Your task to perform on an android device: turn notification dots off Image 0: 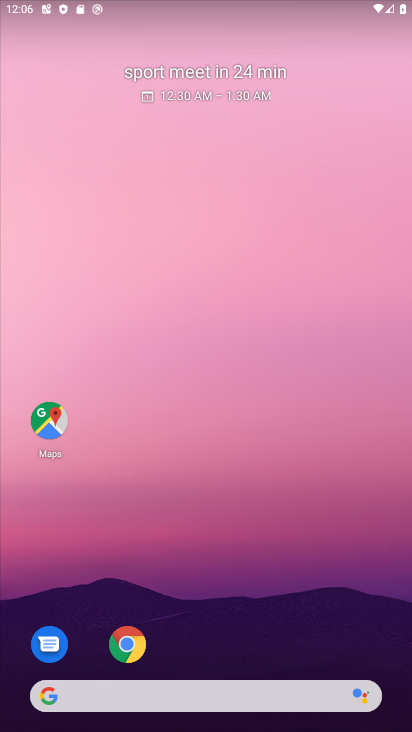
Step 0: drag from (208, 618) to (305, 29)
Your task to perform on an android device: turn notification dots off Image 1: 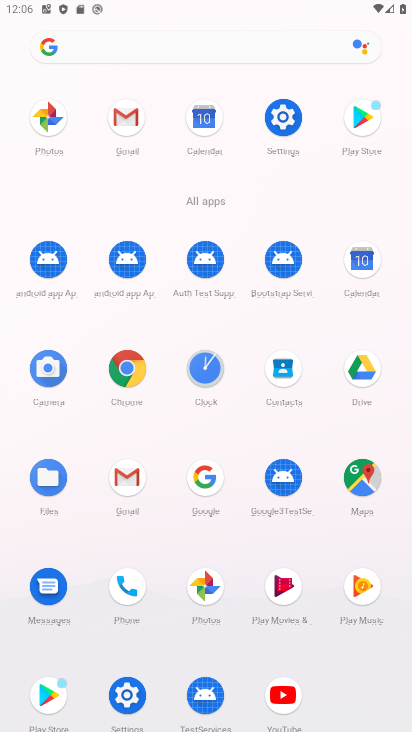
Step 1: click (276, 119)
Your task to perform on an android device: turn notification dots off Image 2: 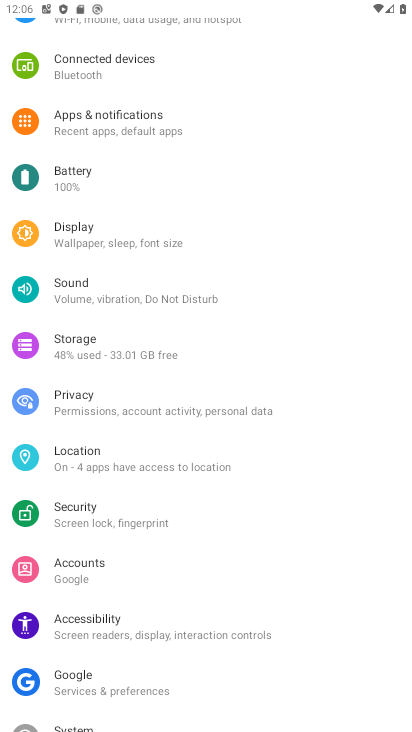
Step 2: click (124, 126)
Your task to perform on an android device: turn notification dots off Image 3: 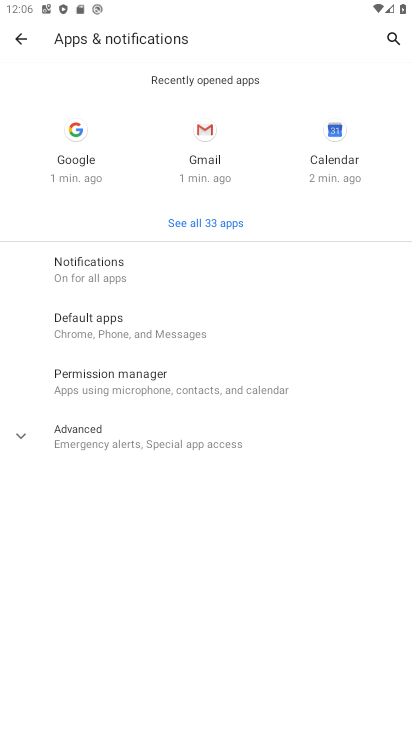
Step 3: click (123, 267)
Your task to perform on an android device: turn notification dots off Image 4: 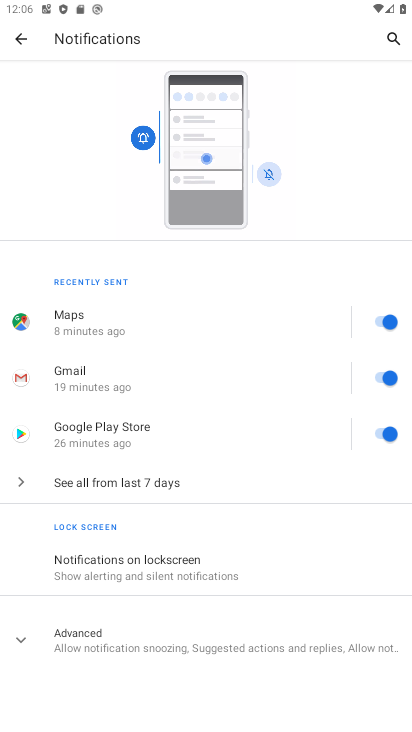
Step 4: drag from (157, 619) to (223, 400)
Your task to perform on an android device: turn notification dots off Image 5: 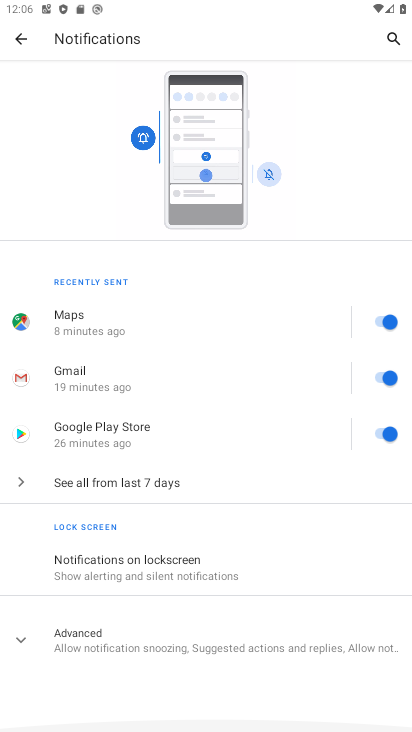
Step 5: click (126, 623)
Your task to perform on an android device: turn notification dots off Image 6: 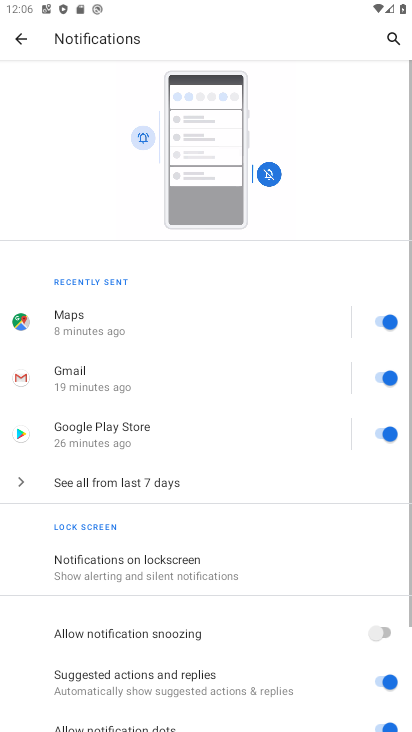
Step 6: drag from (134, 614) to (250, 244)
Your task to perform on an android device: turn notification dots off Image 7: 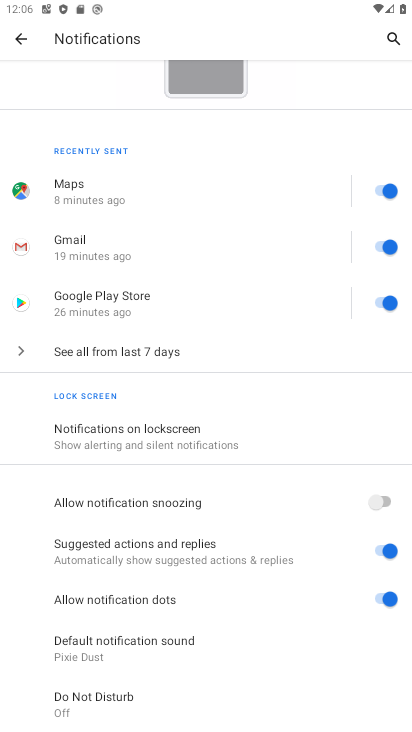
Step 7: click (384, 596)
Your task to perform on an android device: turn notification dots off Image 8: 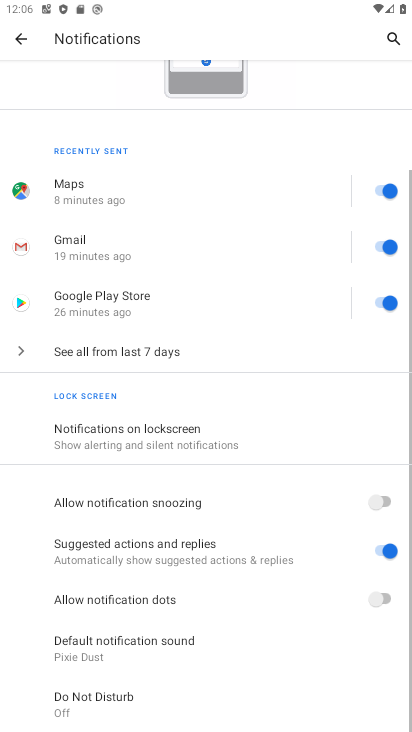
Step 8: task complete